Your task to perform on an android device: empty trash in the gmail app Image 0: 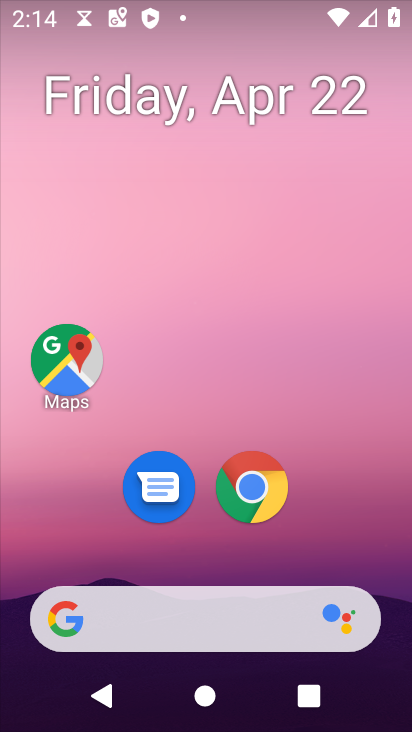
Step 0: drag from (191, 618) to (320, 75)
Your task to perform on an android device: empty trash in the gmail app Image 1: 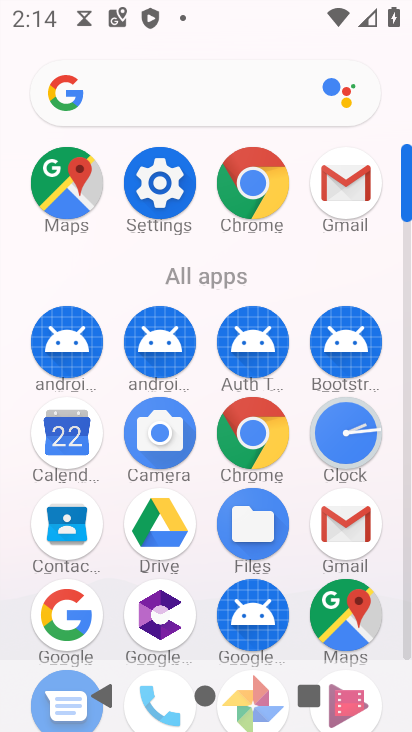
Step 1: click (356, 193)
Your task to perform on an android device: empty trash in the gmail app Image 2: 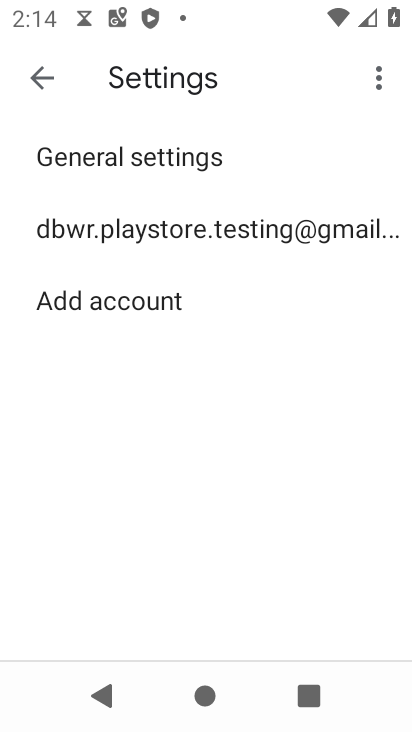
Step 2: click (47, 79)
Your task to perform on an android device: empty trash in the gmail app Image 3: 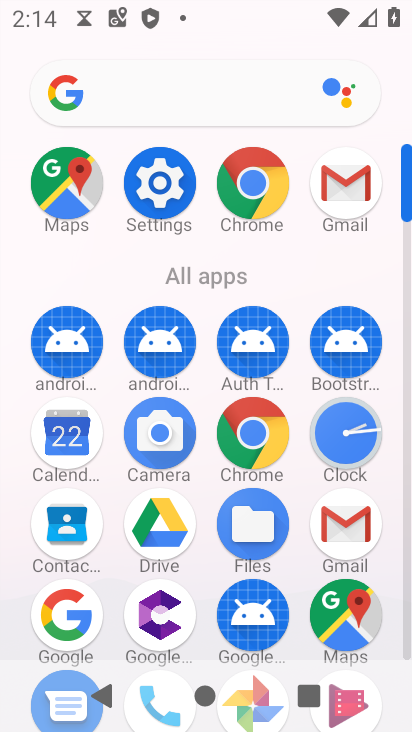
Step 3: click (349, 197)
Your task to perform on an android device: empty trash in the gmail app Image 4: 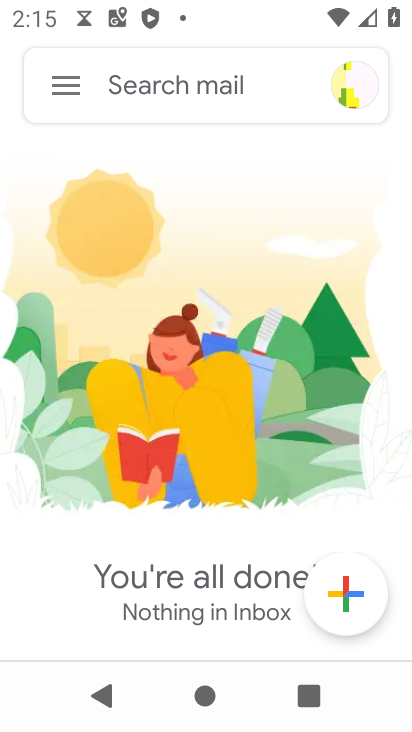
Step 4: click (64, 92)
Your task to perform on an android device: empty trash in the gmail app Image 5: 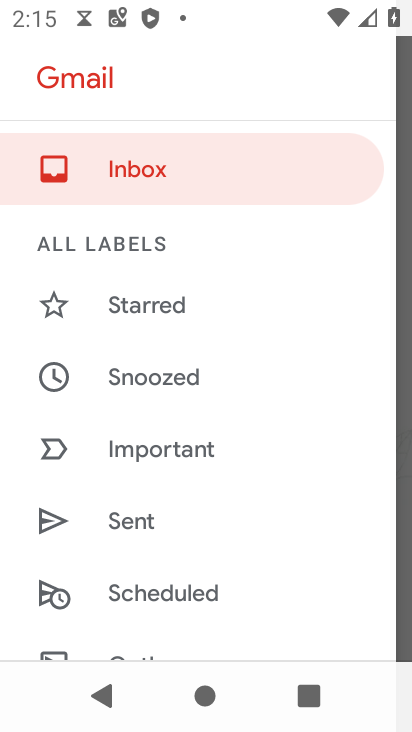
Step 5: drag from (215, 597) to (334, 99)
Your task to perform on an android device: empty trash in the gmail app Image 6: 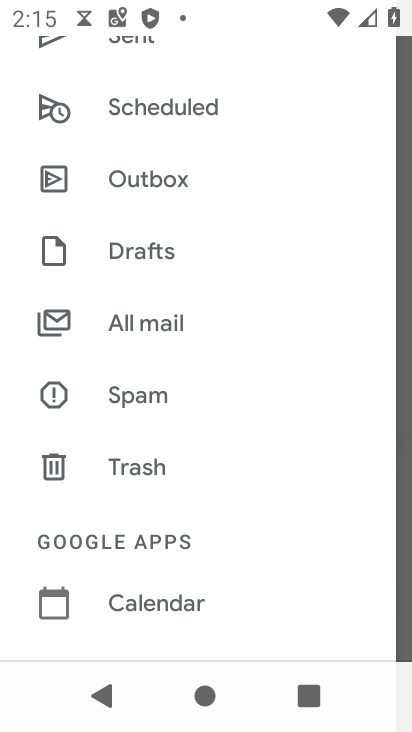
Step 6: click (143, 458)
Your task to perform on an android device: empty trash in the gmail app Image 7: 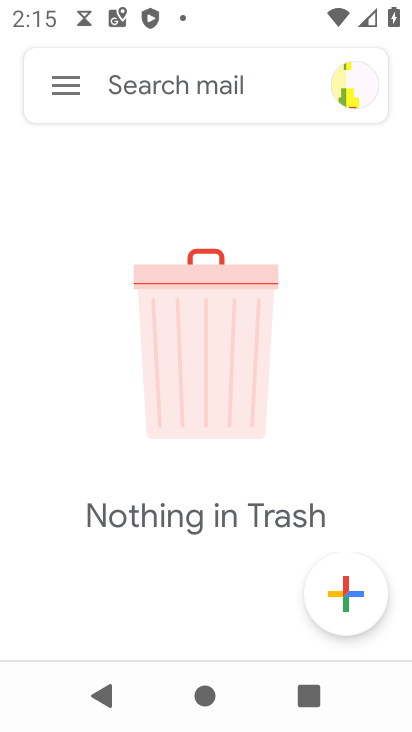
Step 7: task complete